Your task to perform on an android device: Find coffee shops on Maps Image 0: 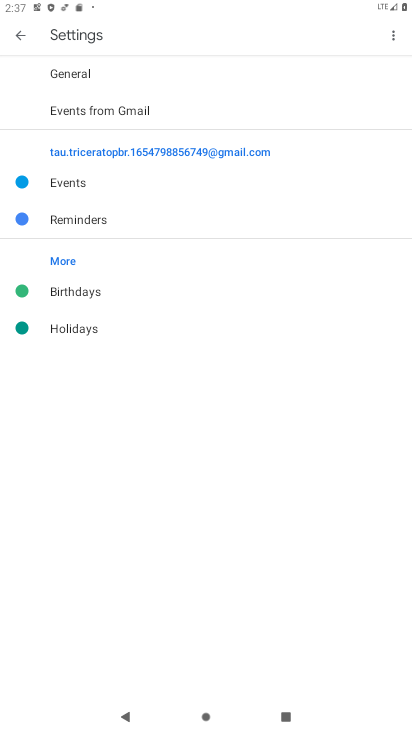
Step 0: press home button
Your task to perform on an android device: Find coffee shops on Maps Image 1: 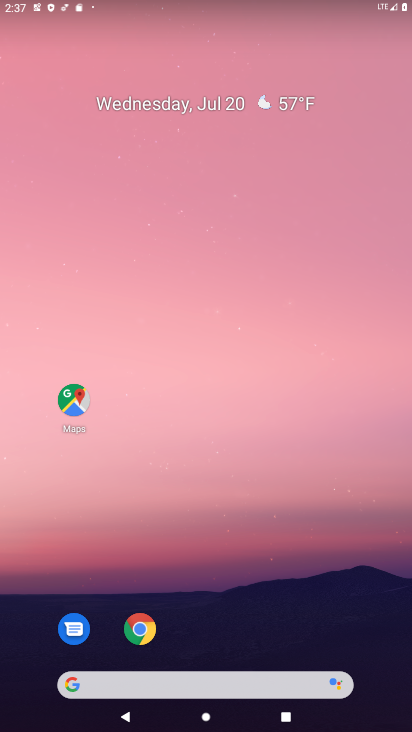
Step 1: click (79, 387)
Your task to perform on an android device: Find coffee shops on Maps Image 2: 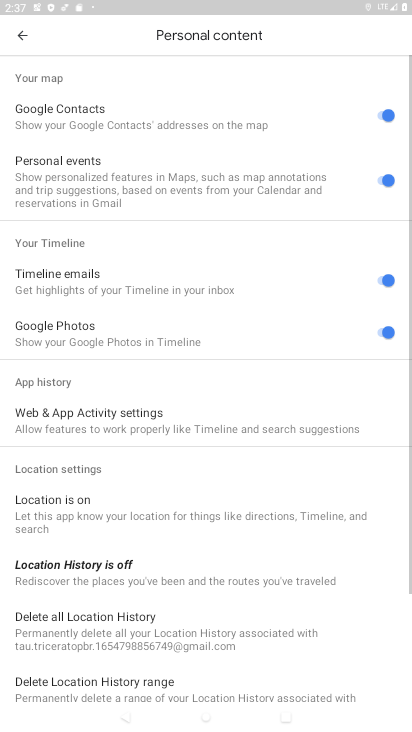
Step 2: click (23, 36)
Your task to perform on an android device: Find coffee shops on Maps Image 3: 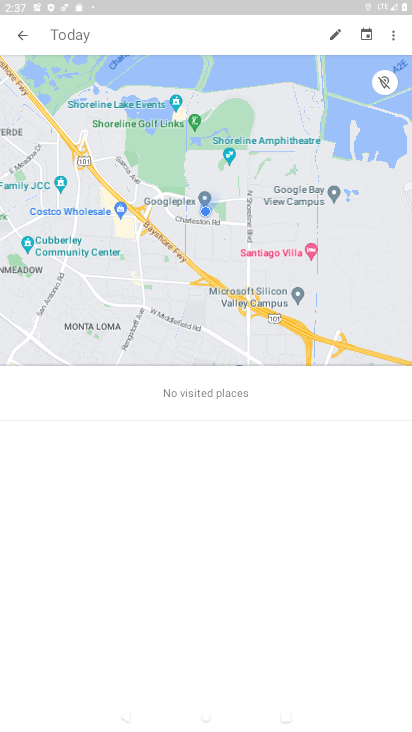
Step 3: click (25, 40)
Your task to perform on an android device: Find coffee shops on Maps Image 4: 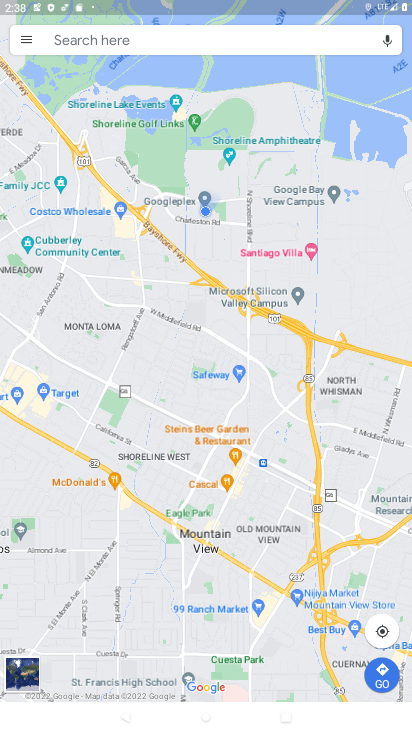
Step 4: click (135, 39)
Your task to perform on an android device: Find coffee shops on Maps Image 5: 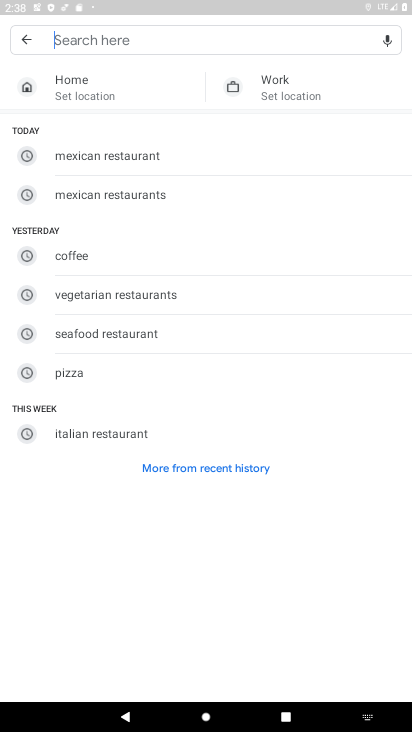
Step 5: type "coffee shops"
Your task to perform on an android device: Find coffee shops on Maps Image 6: 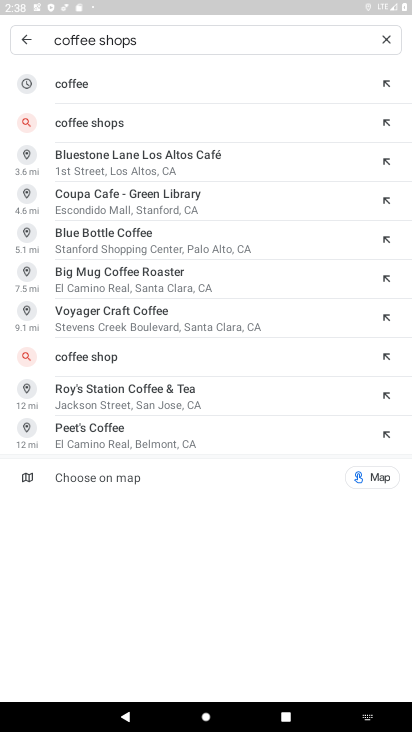
Step 6: click (93, 117)
Your task to perform on an android device: Find coffee shops on Maps Image 7: 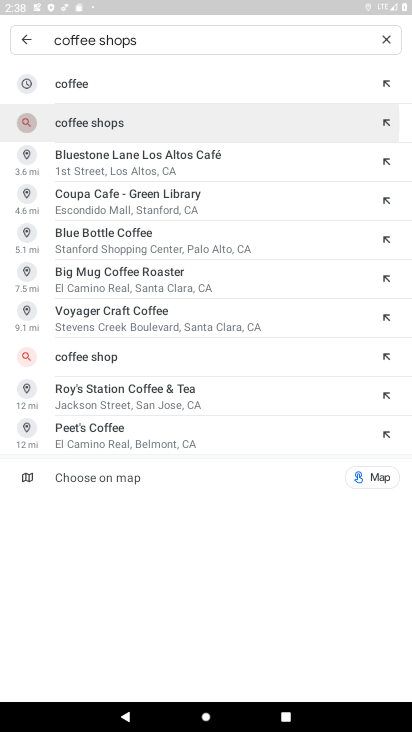
Step 7: task complete